Your task to perform on an android device: Open the map Image 0: 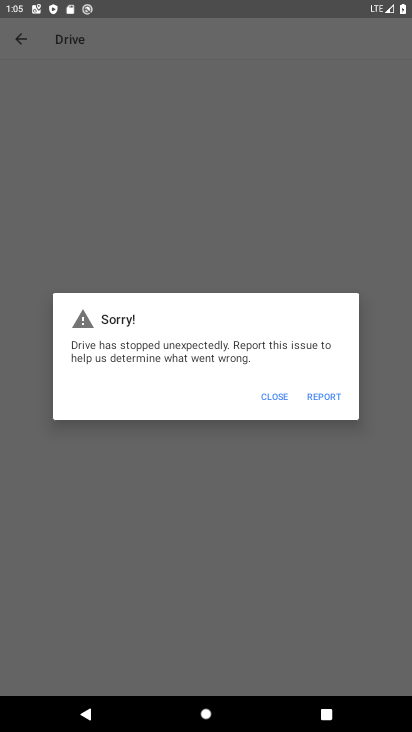
Step 0: press home button
Your task to perform on an android device: Open the map Image 1: 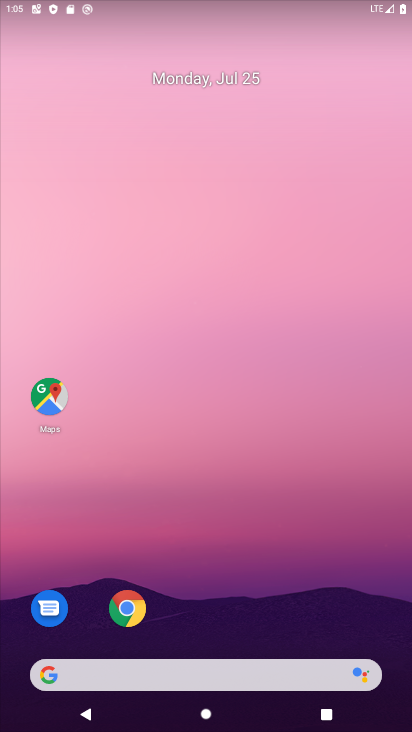
Step 1: click (55, 390)
Your task to perform on an android device: Open the map Image 2: 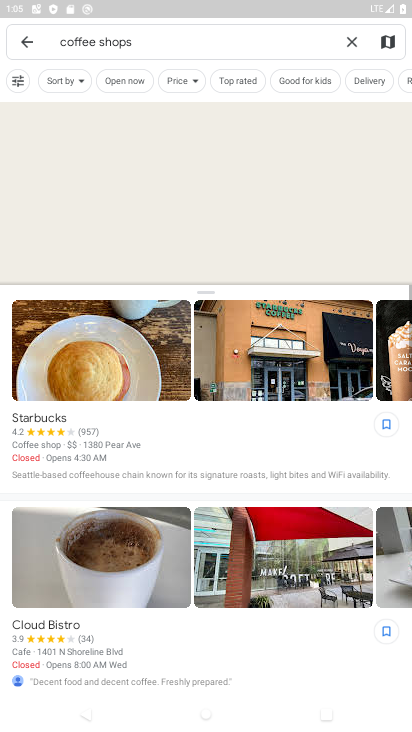
Step 2: task complete